Your task to perform on an android device: search for starred emails in the gmail app Image 0: 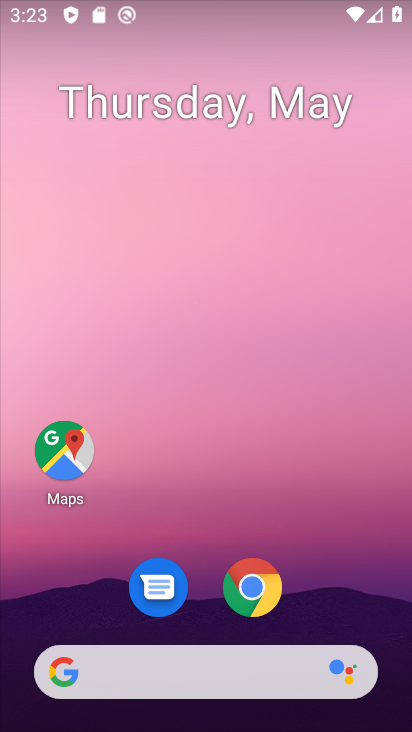
Step 0: drag from (232, 728) to (226, 129)
Your task to perform on an android device: search for starred emails in the gmail app Image 1: 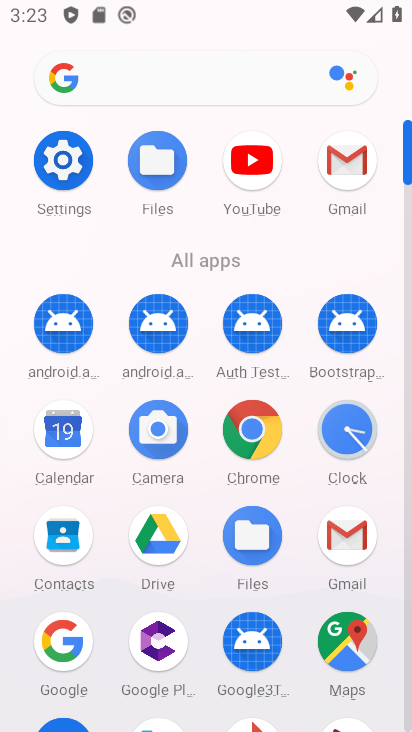
Step 1: click (347, 527)
Your task to perform on an android device: search for starred emails in the gmail app Image 2: 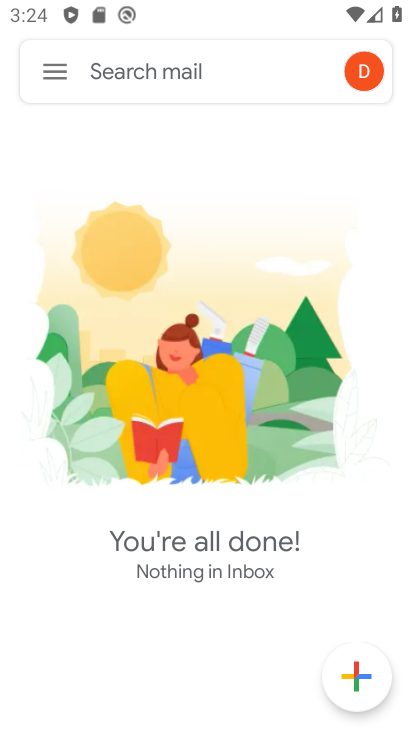
Step 2: click (47, 70)
Your task to perform on an android device: search for starred emails in the gmail app Image 3: 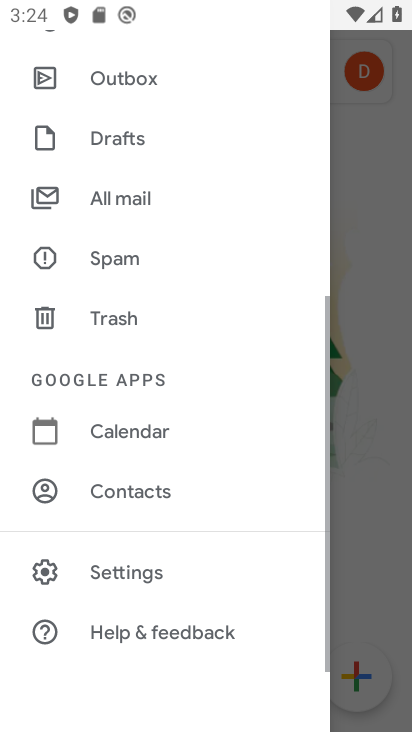
Step 3: drag from (125, 193) to (158, 498)
Your task to perform on an android device: search for starred emails in the gmail app Image 4: 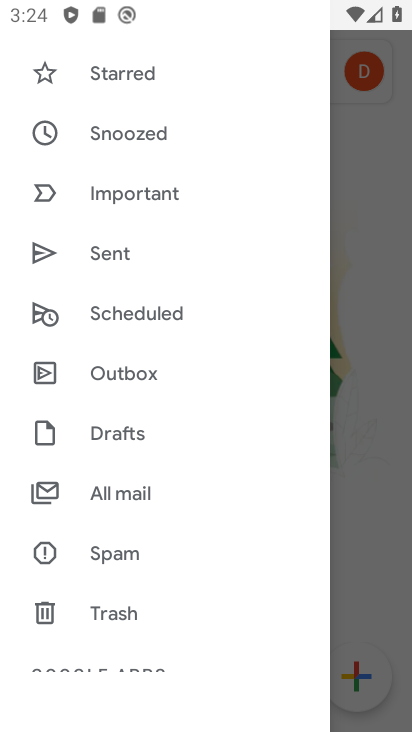
Step 4: click (127, 73)
Your task to perform on an android device: search for starred emails in the gmail app Image 5: 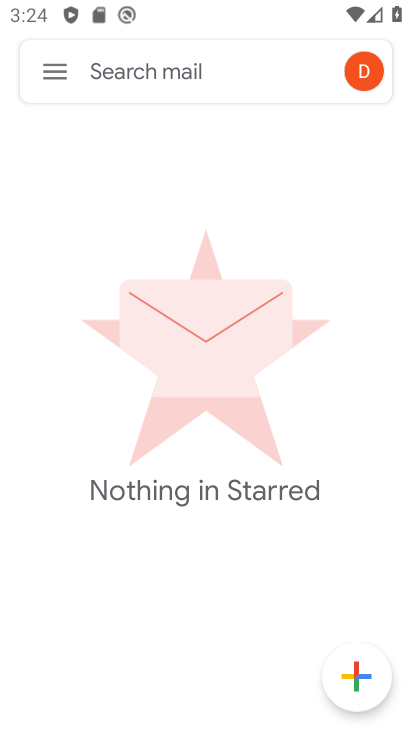
Step 5: task complete